Your task to perform on an android device: Open Chrome and go to the settings page Image 0: 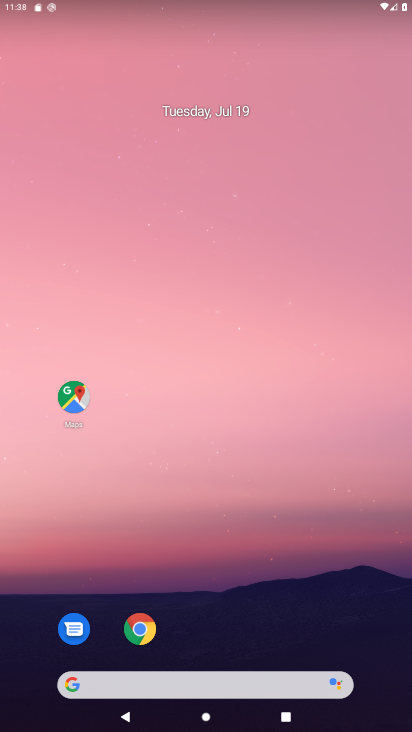
Step 0: click (140, 633)
Your task to perform on an android device: Open Chrome and go to the settings page Image 1: 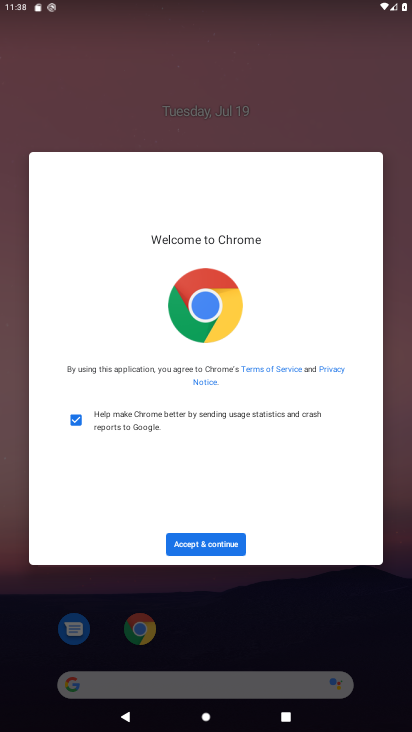
Step 1: click (209, 543)
Your task to perform on an android device: Open Chrome and go to the settings page Image 2: 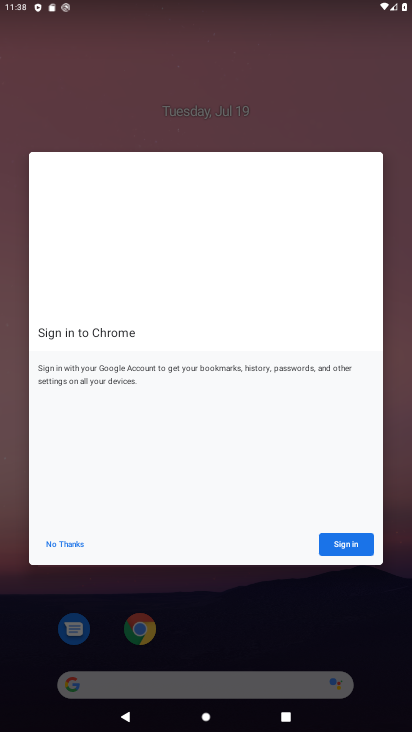
Step 2: click (65, 543)
Your task to perform on an android device: Open Chrome and go to the settings page Image 3: 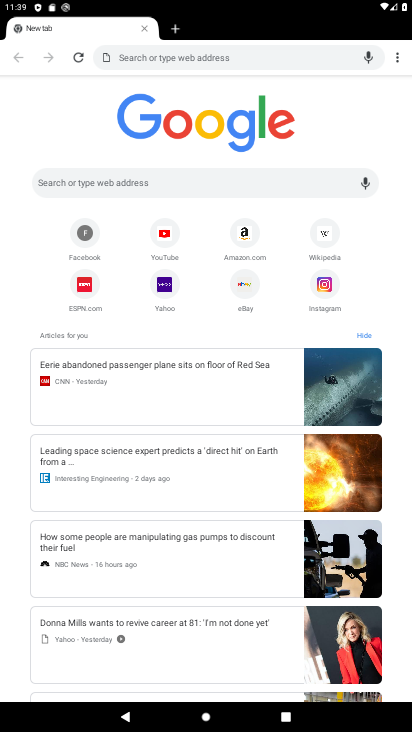
Step 3: click (396, 60)
Your task to perform on an android device: Open Chrome and go to the settings page Image 4: 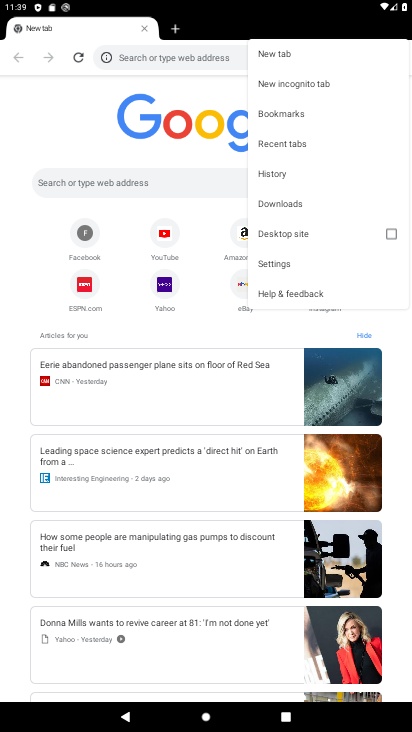
Step 4: click (276, 262)
Your task to perform on an android device: Open Chrome and go to the settings page Image 5: 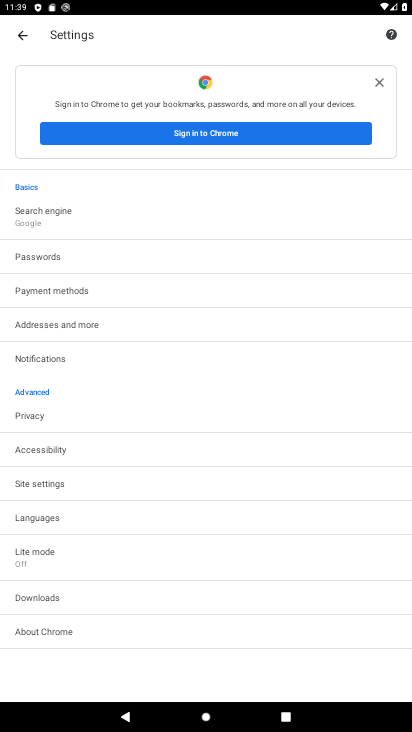
Step 5: click (276, 262)
Your task to perform on an android device: Open Chrome and go to the settings page Image 6: 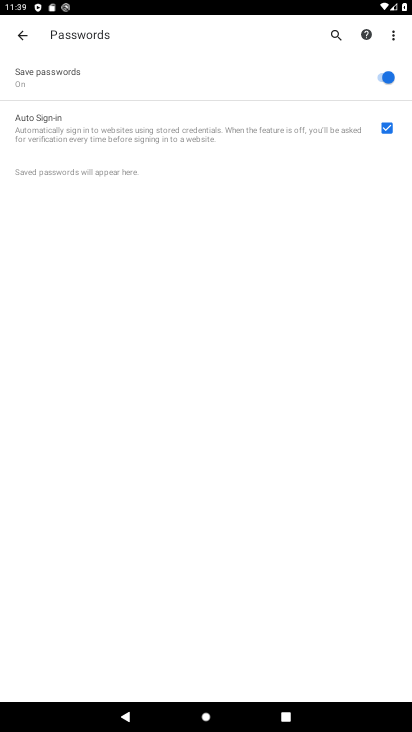
Step 6: task complete